Your task to perform on an android device: install app "Google Play services" Image 0: 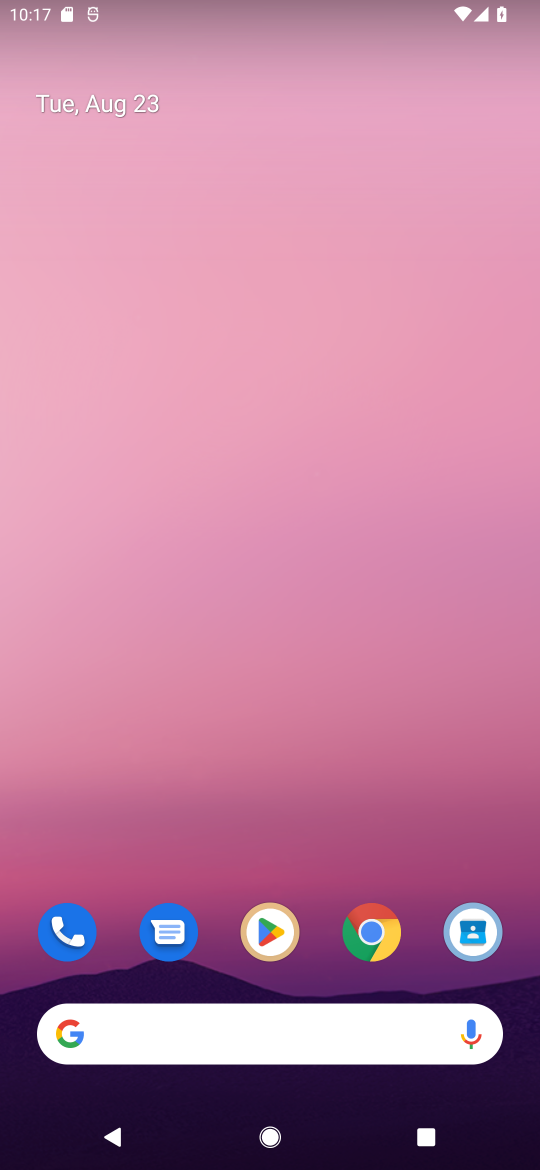
Step 0: click (268, 931)
Your task to perform on an android device: install app "Google Play services" Image 1: 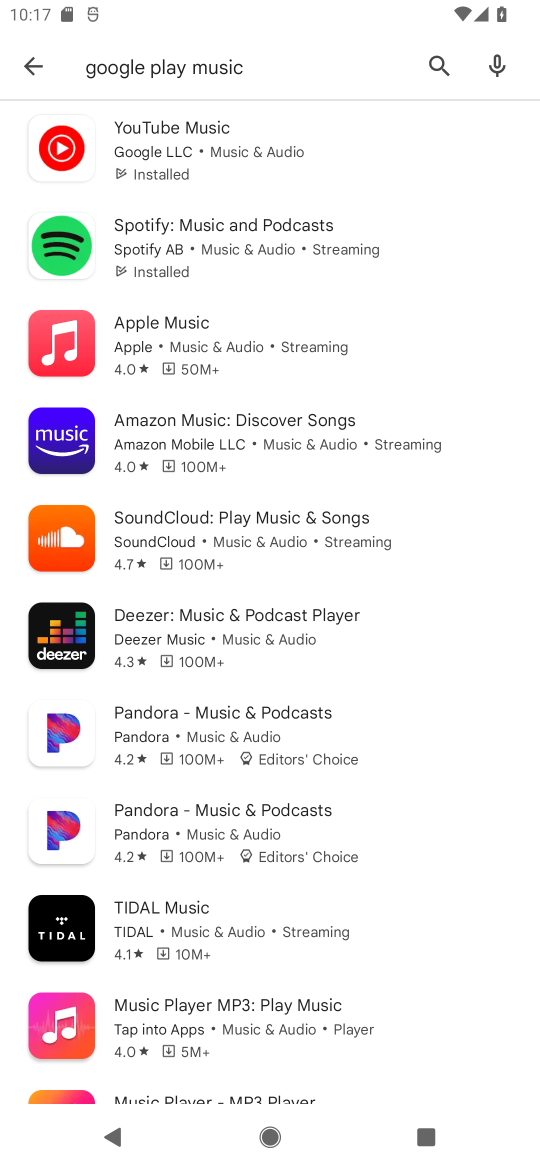
Step 1: click (447, 65)
Your task to perform on an android device: install app "Google Play services" Image 2: 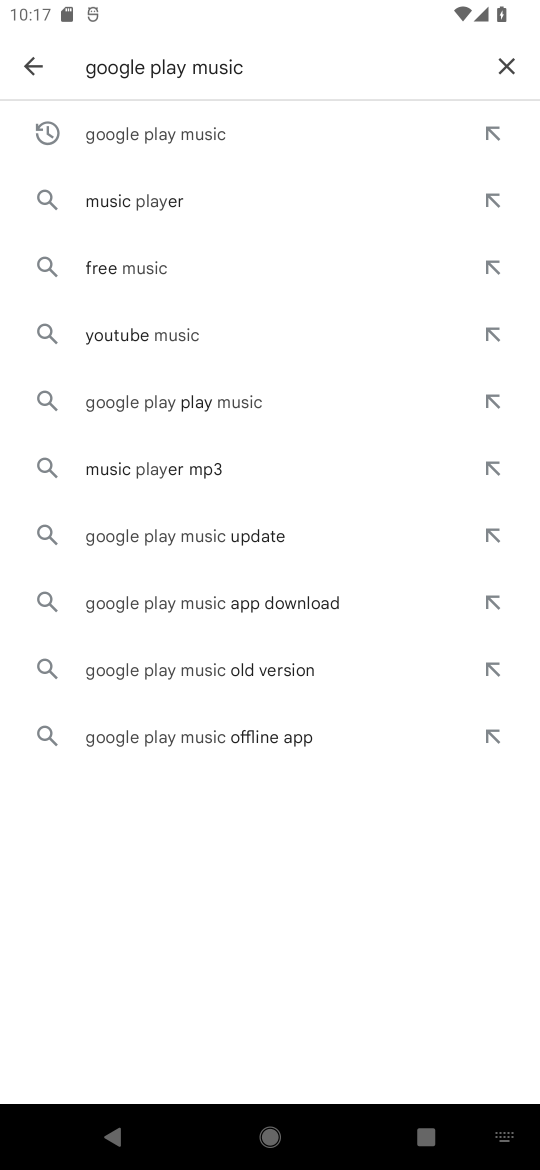
Step 2: click (489, 65)
Your task to perform on an android device: install app "Google Play services" Image 3: 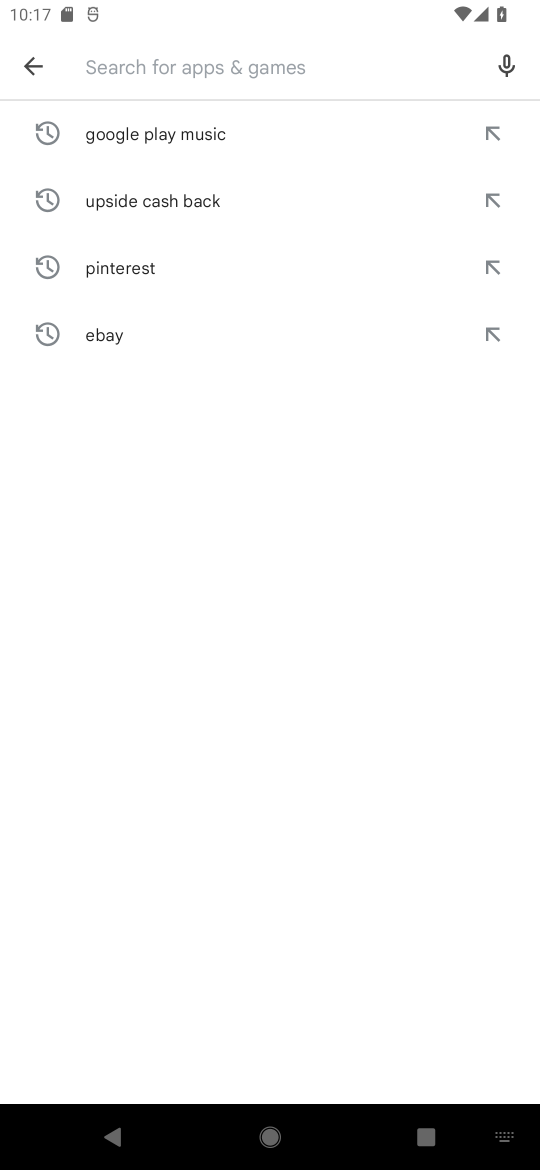
Step 3: click (203, 55)
Your task to perform on an android device: install app "Google Play services" Image 4: 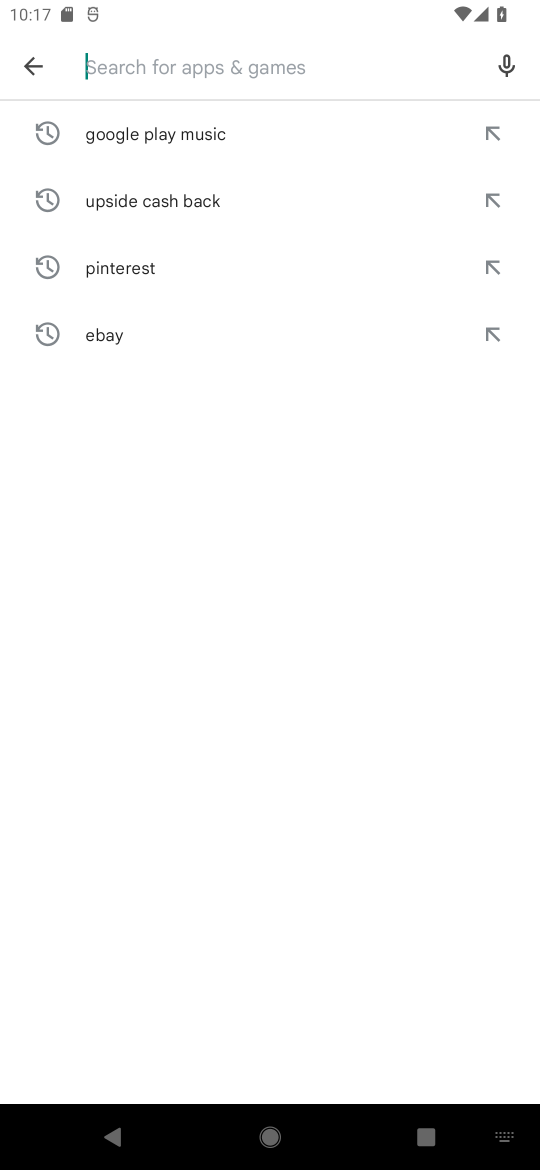
Step 4: type "Google Play services"
Your task to perform on an android device: install app "Google Play services" Image 5: 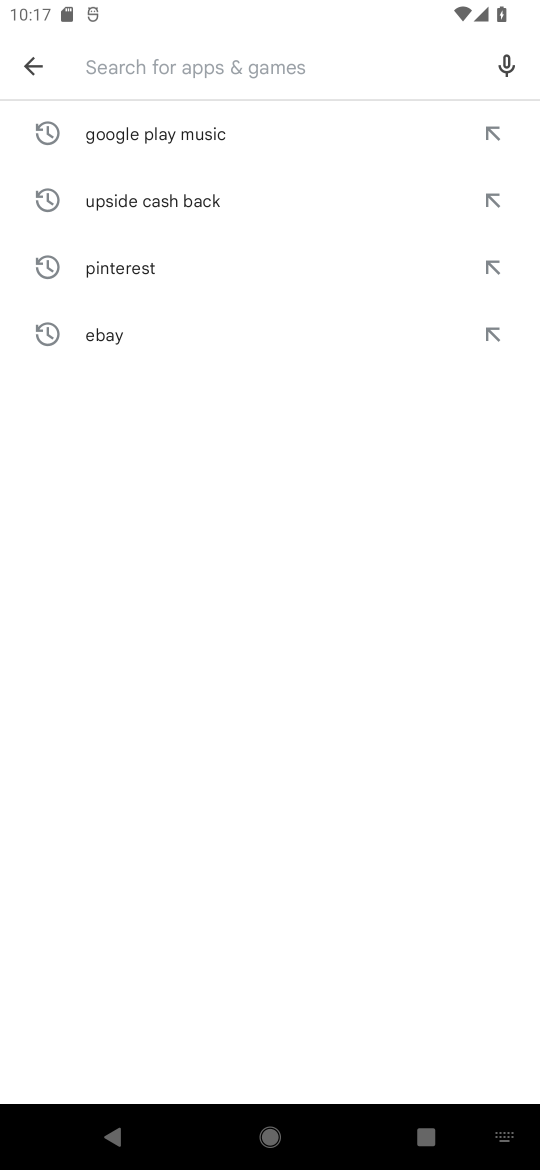
Step 5: click (237, 746)
Your task to perform on an android device: install app "Google Play services" Image 6: 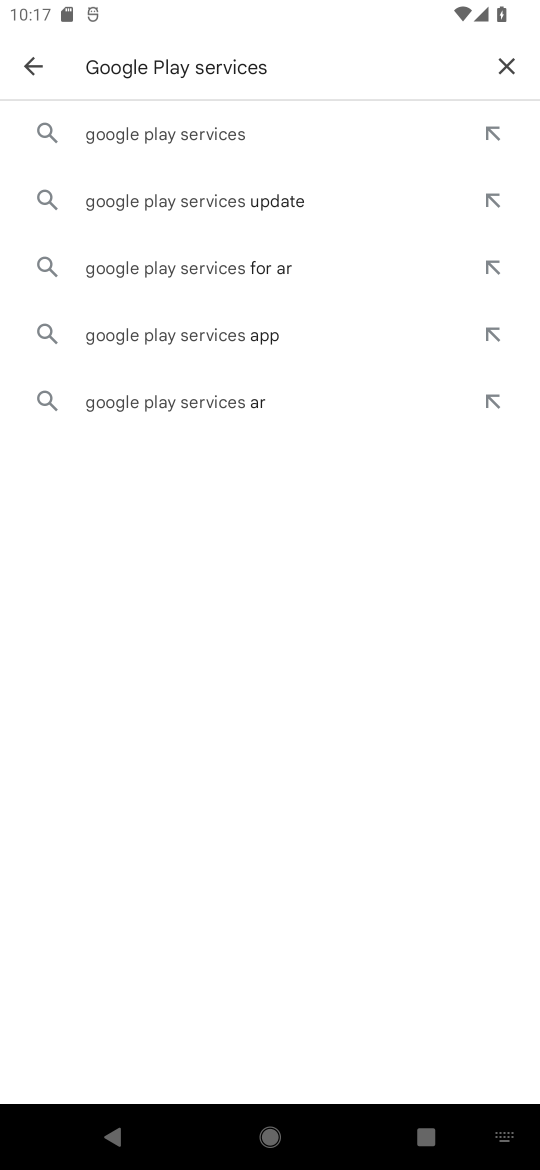
Step 6: click (244, 132)
Your task to perform on an android device: install app "Google Play services" Image 7: 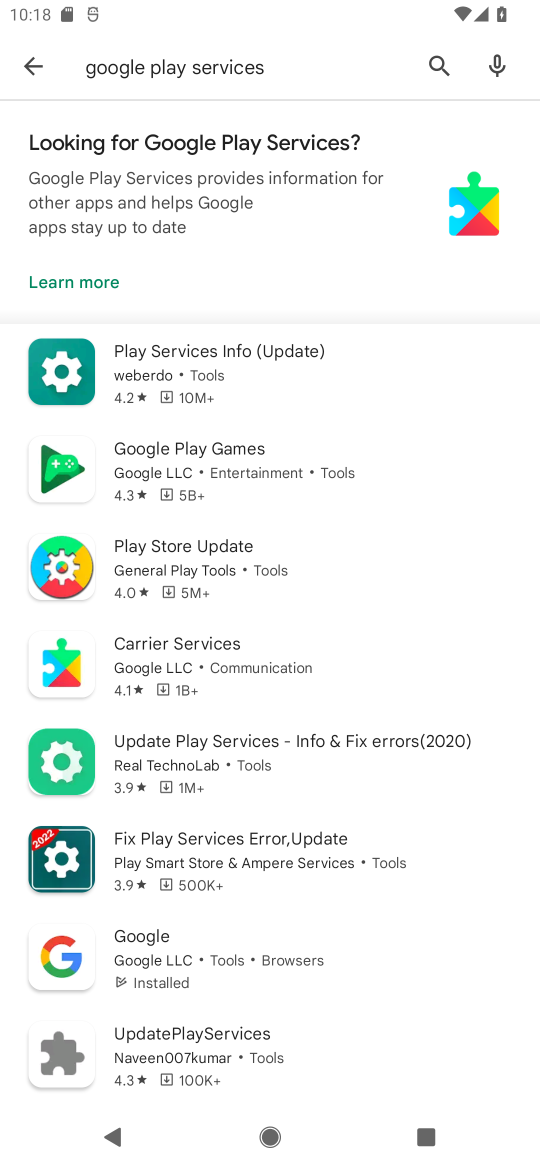
Step 7: click (188, 383)
Your task to perform on an android device: install app "Google Play services" Image 8: 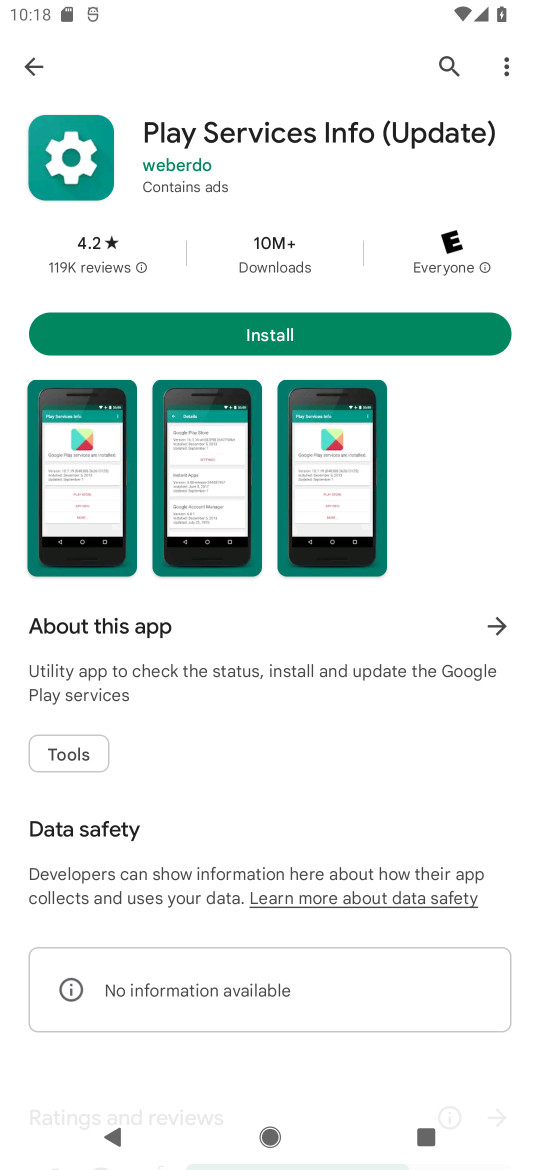
Step 8: click (252, 318)
Your task to perform on an android device: install app "Google Play services" Image 9: 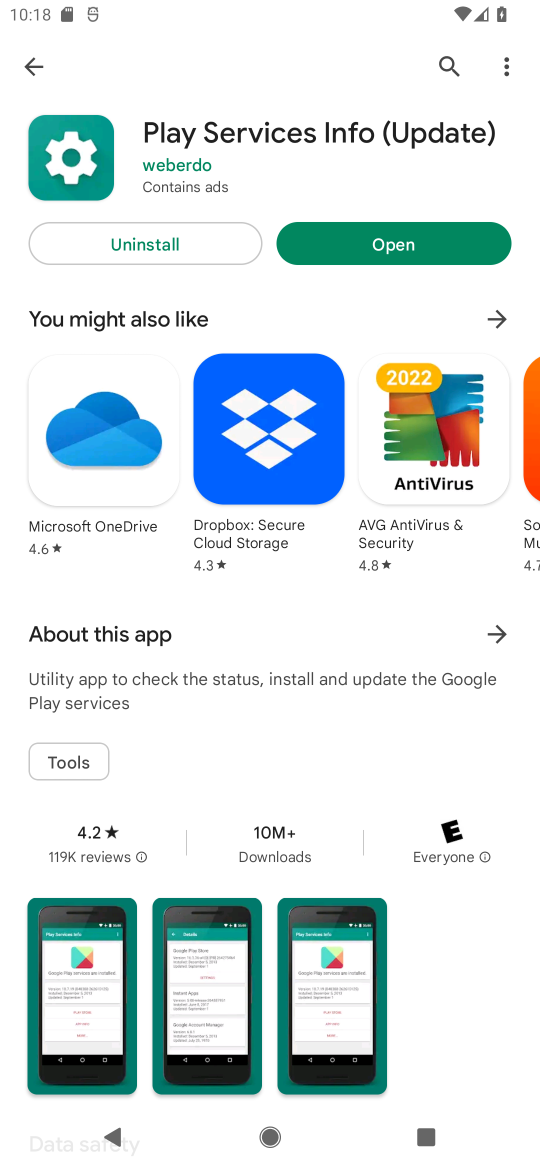
Step 9: task complete